Your task to perform on an android device: Open Amazon Image 0: 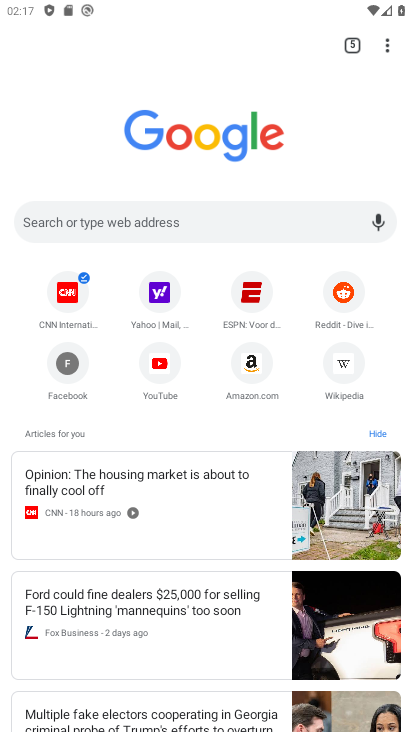
Step 0: click (252, 367)
Your task to perform on an android device: Open Amazon Image 1: 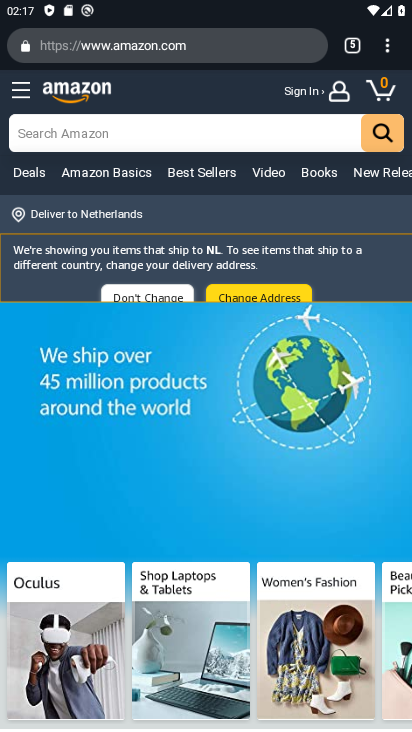
Step 1: task complete